Your task to perform on an android device: What's the weather? Image 0: 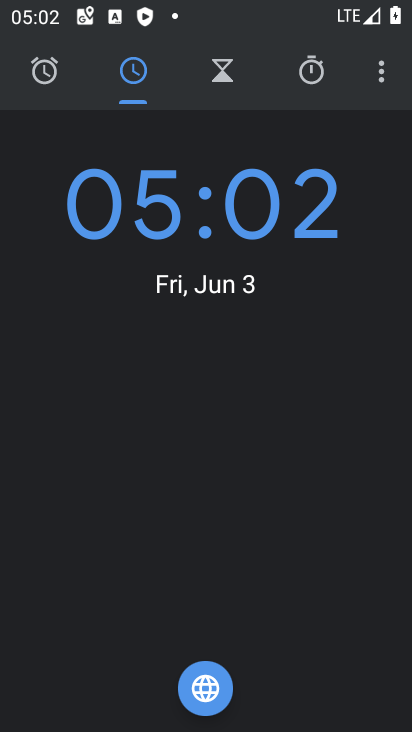
Step 0: press home button
Your task to perform on an android device: What's the weather? Image 1: 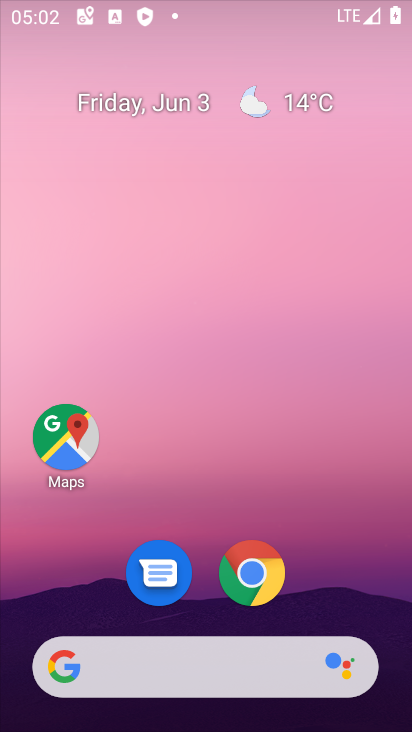
Step 1: drag from (368, 576) to (338, 112)
Your task to perform on an android device: What's the weather? Image 2: 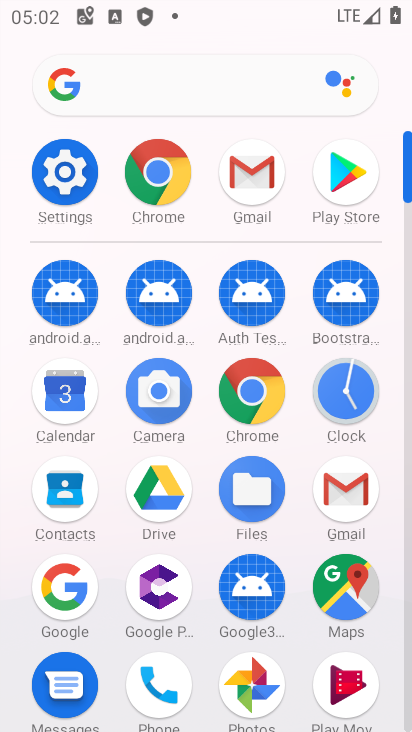
Step 2: click (167, 210)
Your task to perform on an android device: What's the weather? Image 3: 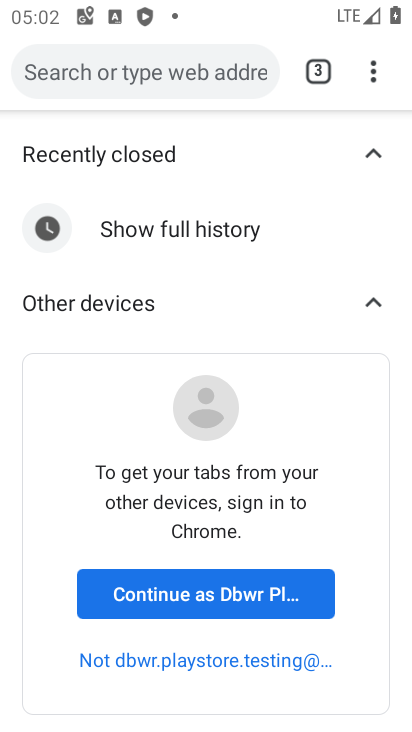
Step 3: click (232, 80)
Your task to perform on an android device: What's the weather? Image 4: 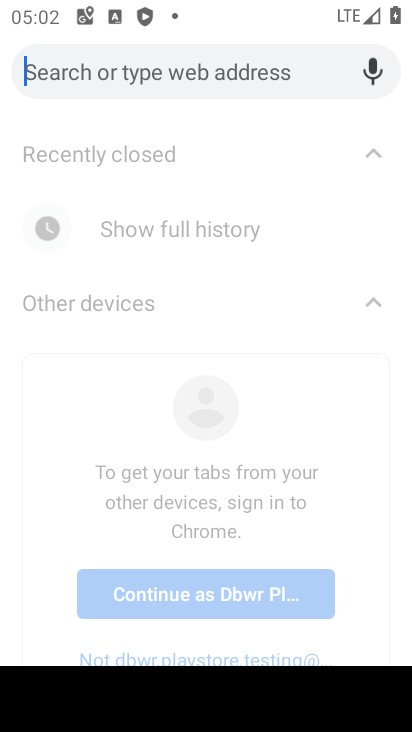
Step 4: type "whats the weather"
Your task to perform on an android device: What's the weather? Image 5: 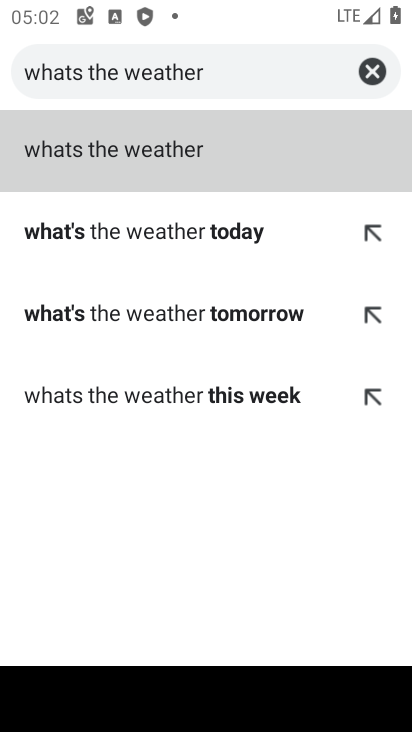
Step 5: click (193, 168)
Your task to perform on an android device: What's the weather? Image 6: 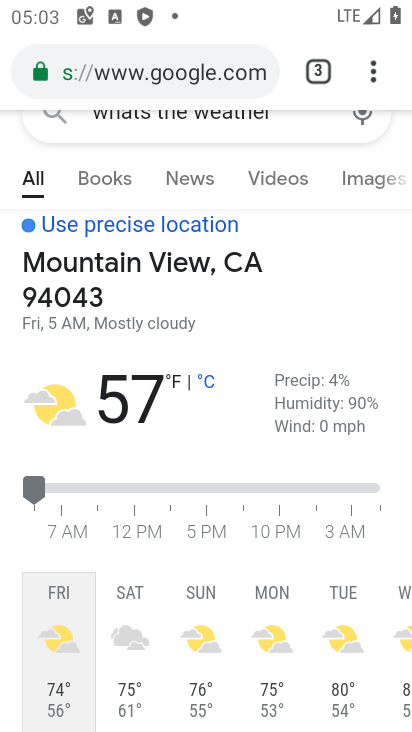
Step 6: task complete